Your task to perform on an android device: Open Chrome and go to the settings page Image 0: 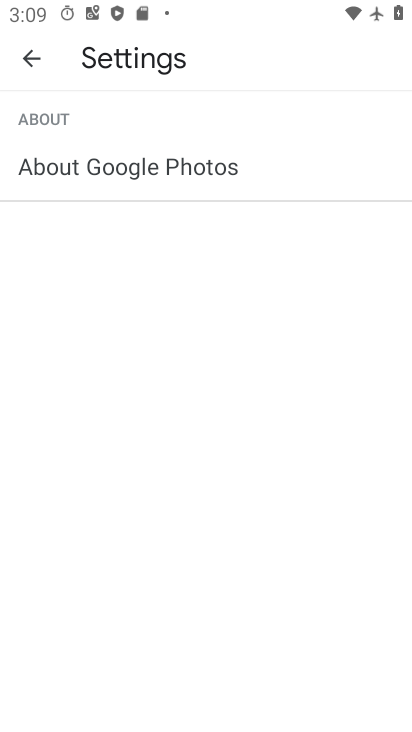
Step 0: press back button
Your task to perform on an android device: Open Chrome and go to the settings page Image 1: 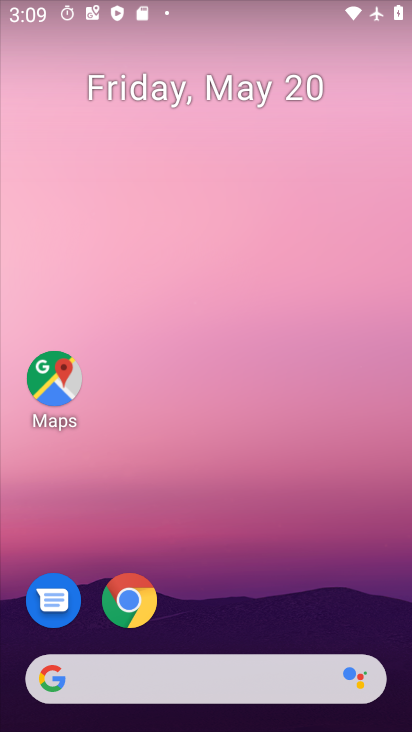
Step 1: drag from (269, 546) to (233, 23)
Your task to perform on an android device: Open Chrome and go to the settings page Image 2: 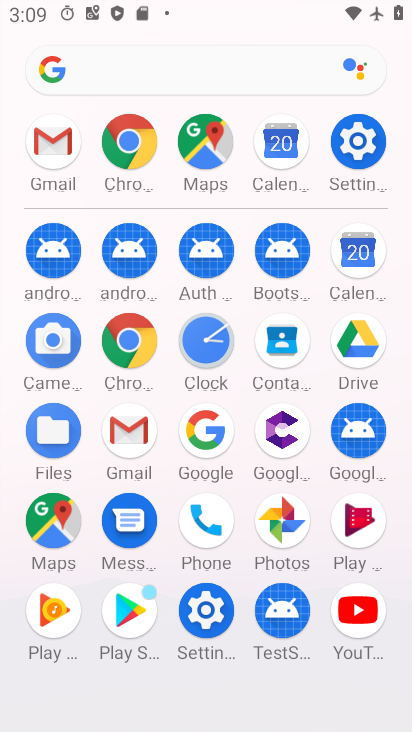
Step 2: drag from (1, 523) to (2, 288)
Your task to perform on an android device: Open Chrome and go to the settings page Image 3: 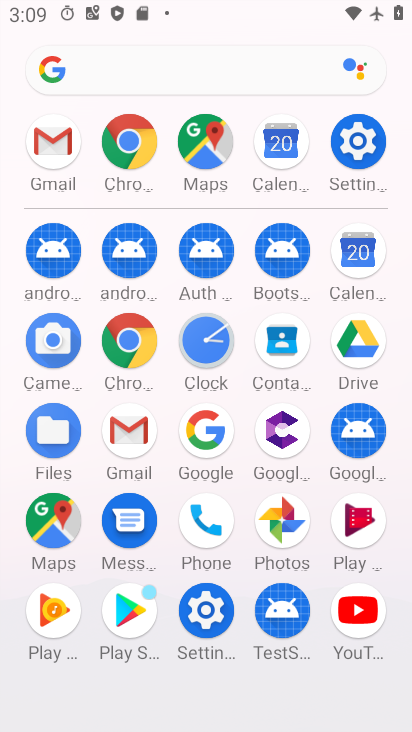
Step 3: click (127, 337)
Your task to perform on an android device: Open Chrome and go to the settings page Image 4: 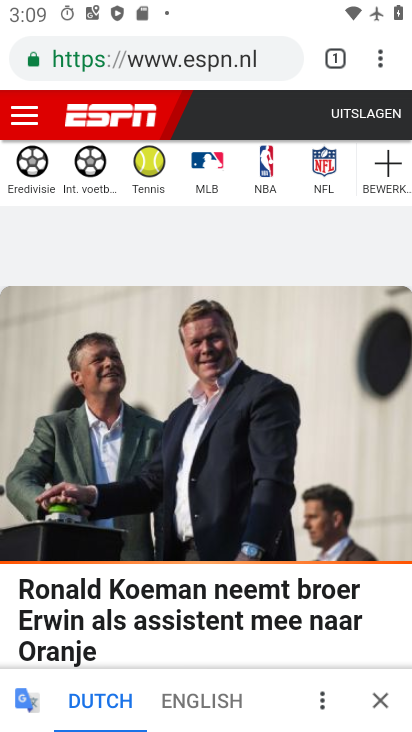
Step 4: task complete